Your task to perform on an android device: manage bookmarks in the chrome app Image 0: 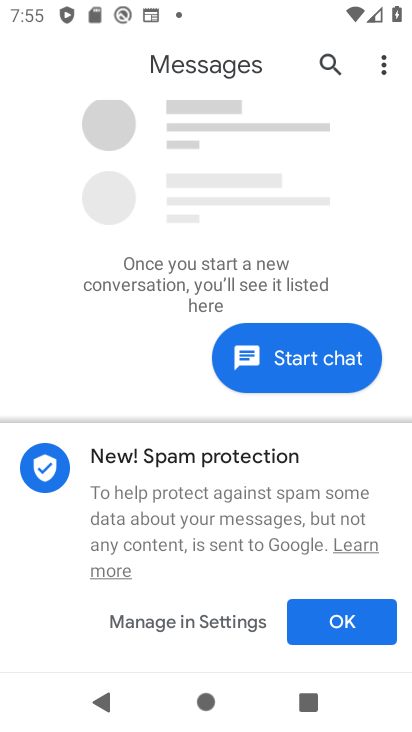
Step 0: press home button
Your task to perform on an android device: manage bookmarks in the chrome app Image 1: 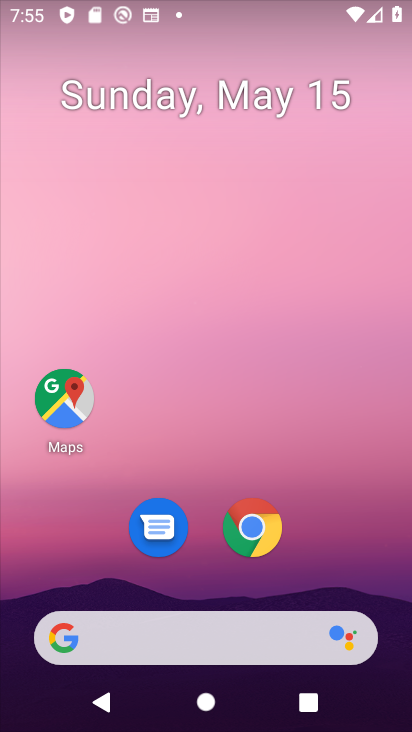
Step 1: click (275, 531)
Your task to perform on an android device: manage bookmarks in the chrome app Image 2: 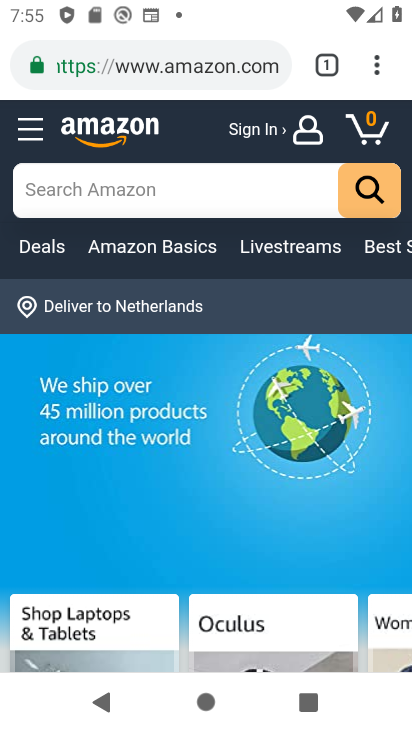
Step 2: drag from (377, 70) to (234, 249)
Your task to perform on an android device: manage bookmarks in the chrome app Image 3: 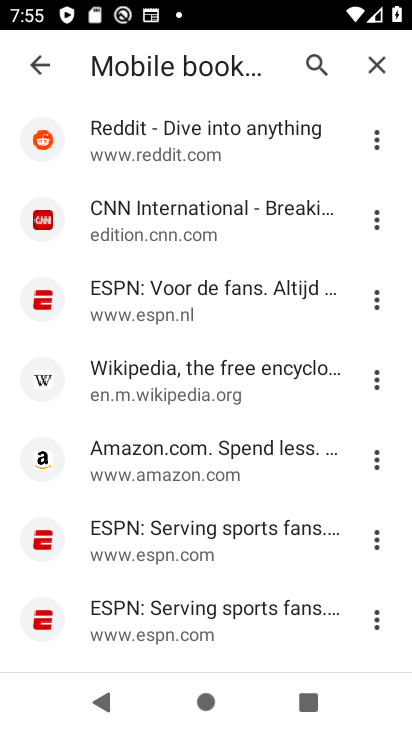
Step 3: drag from (236, 500) to (247, 269)
Your task to perform on an android device: manage bookmarks in the chrome app Image 4: 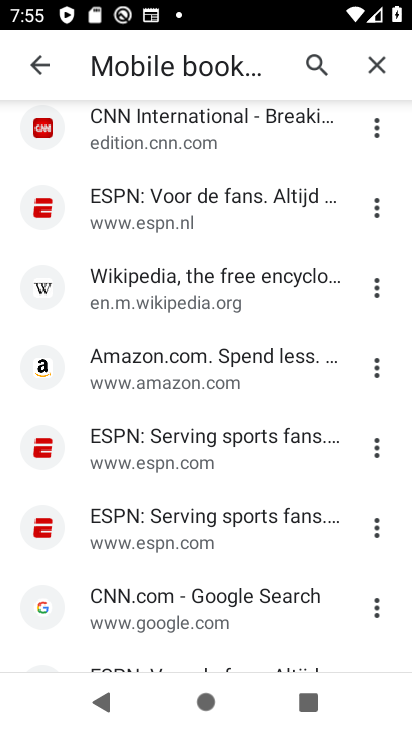
Step 4: click (373, 454)
Your task to perform on an android device: manage bookmarks in the chrome app Image 5: 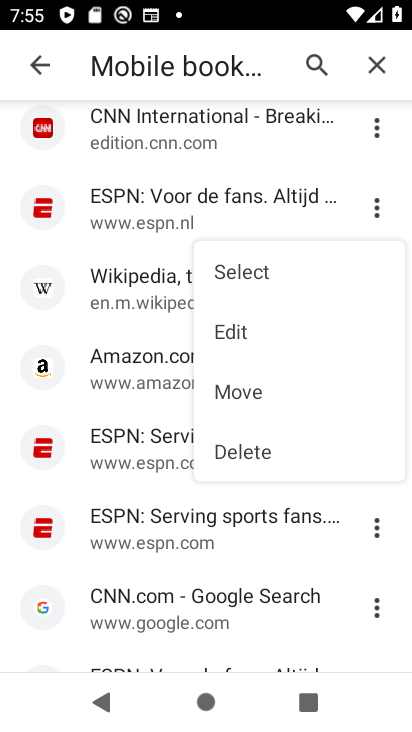
Step 5: click (272, 448)
Your task to perform on an android device: manage bookmarks in the chrome app Image 6: 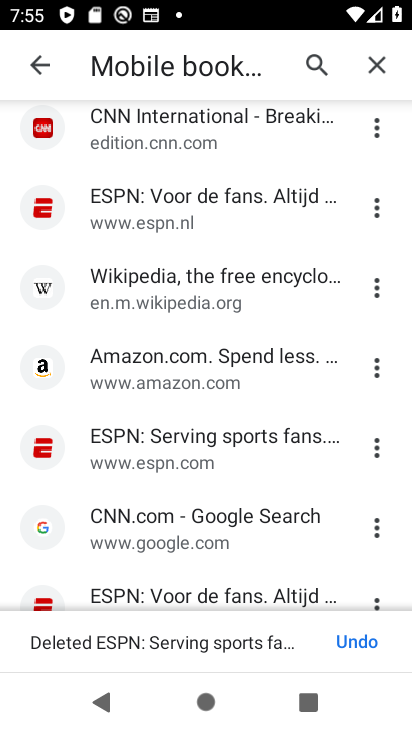
Step 6: task complete